Your task to perform on an android device: Search for Mexican restaurants on Maps Image 0: 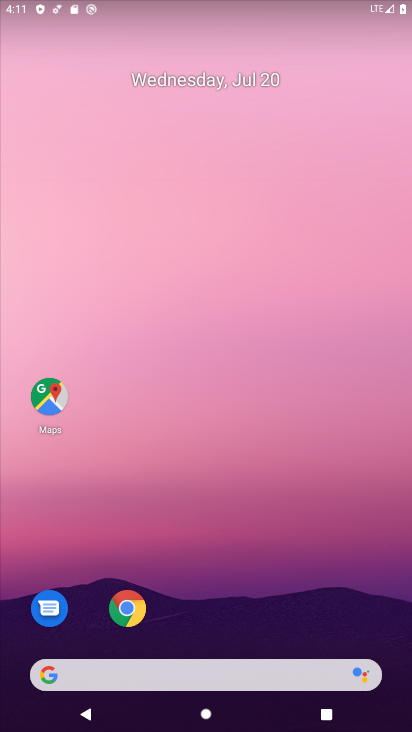
Step 0: drag from (186, 656) to (261, 208)
Your task to perform on an android device: Search for Mexican restaurants on Maps Image 1: 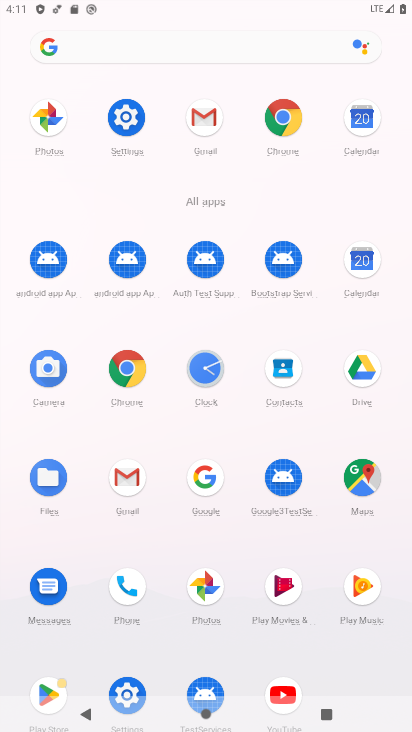
Step 1: click (375, 480)
Your task to perform on an android device: Search for Mexican restaurants on Maps Image 2: 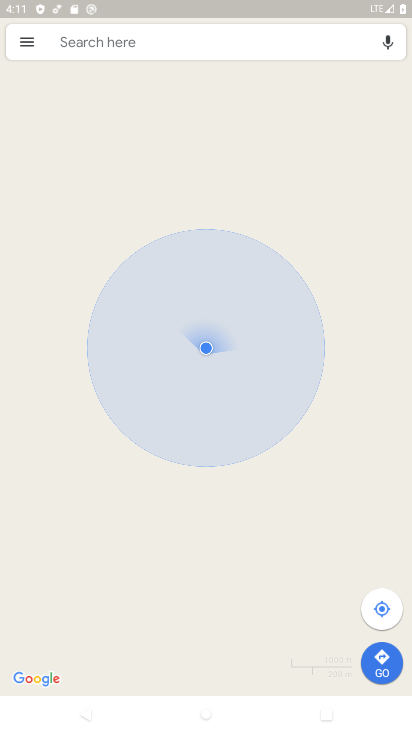
Step 2: click (93, 50)
Your task to perform on an android device: Search for Mexican restaurants on Maps Image 3: 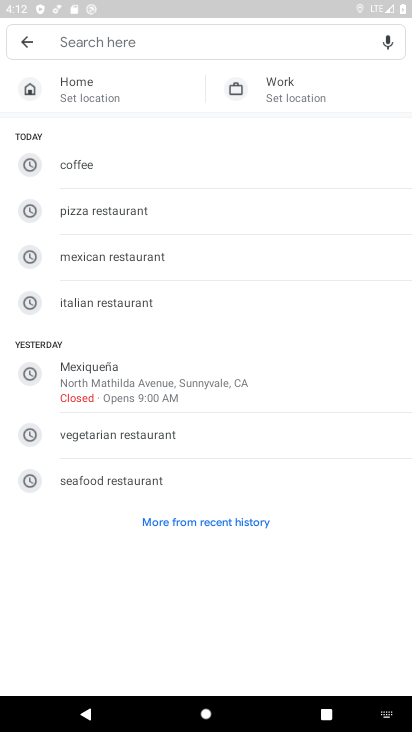
Step 3: type "Mexican restaurants"
Your task to perform on an android device: Search for Mexican restaurants on Maps Image 4: 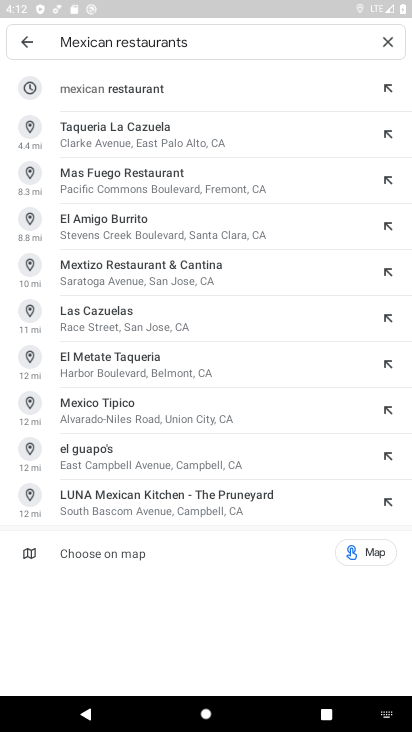
Step 4: click (137, 83)
Your task to perform on an android device: Search for Mexican restaurants on Maps Image 5: 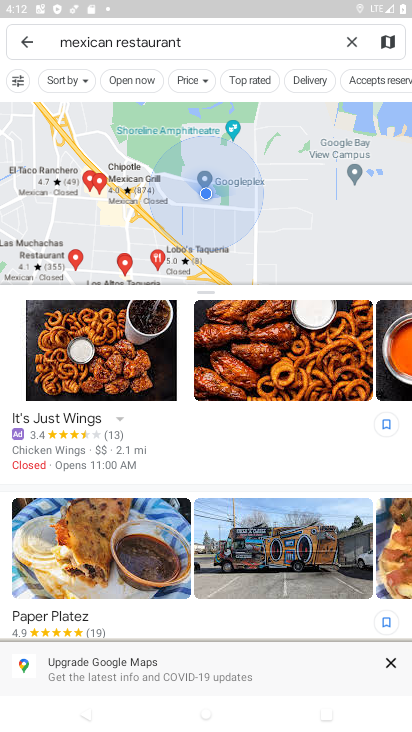
Step 5: task complete